Your task to perform on an android device: open wifi settings Image 0: 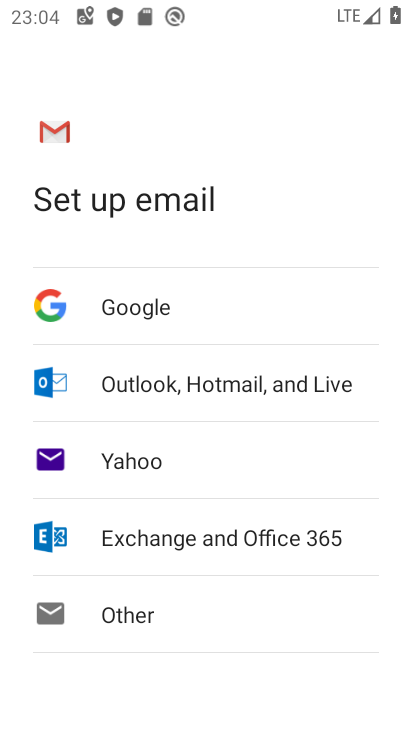
Step 0: press home button
Your task to perform on an android device: open wifi settings Image 1: 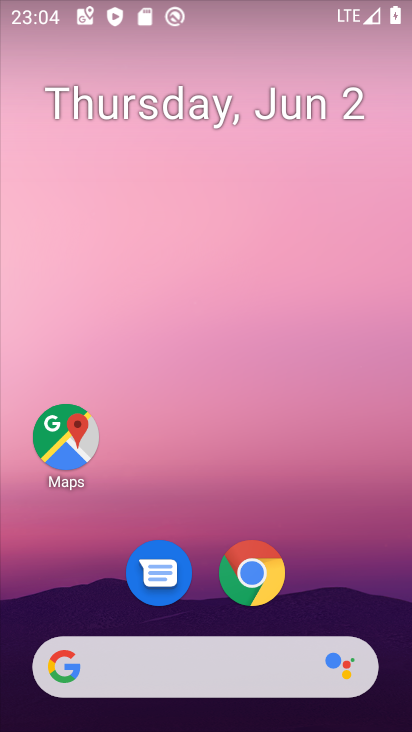
Step 1: drag from (336, 578) to (330, 413)
Your task to perform on an android device: open wifi settings Image 2: 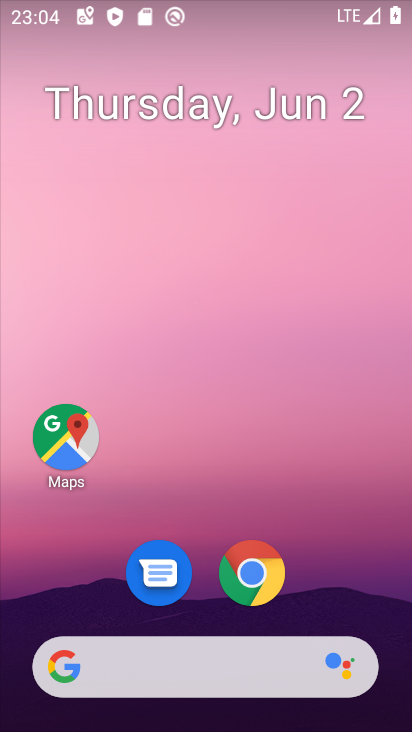
Step 2: drag from (385, 599) to (364, 52)
Your task to perform on an android device: open wifi settings Image 3: 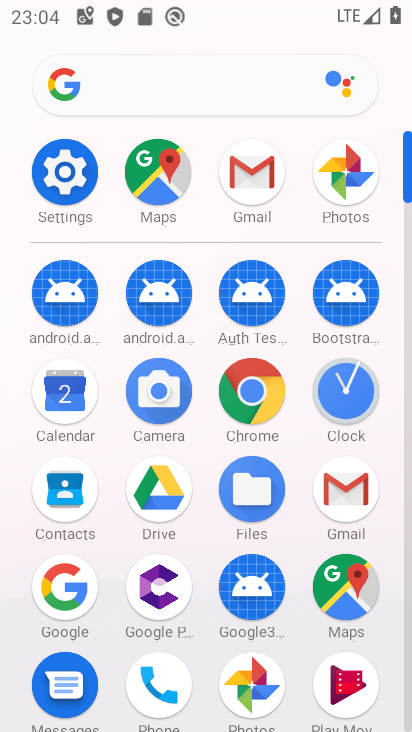
Step 3: click (73, 174)
Your task to perform on an android device: open wifi settings Image 4: 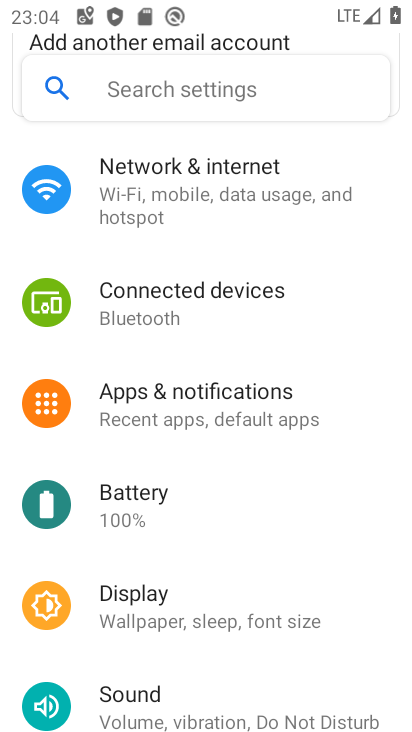
Step 4: click (226, 202)
Your task to perform on an android device: open wifi settings Image 5: 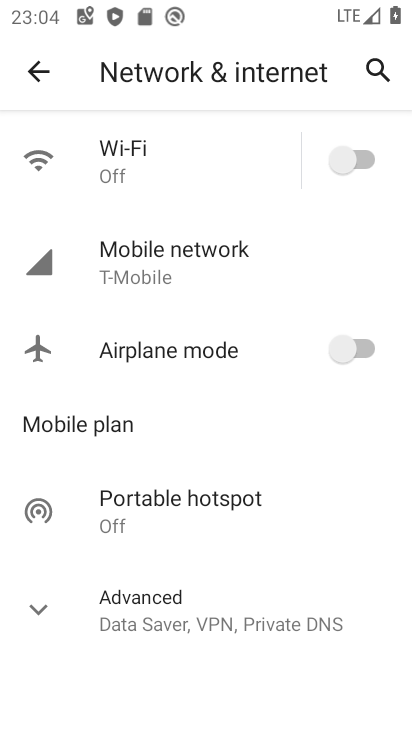
Step 5: click (140, 150)
Your task to perform on an android device: open wifi settings Image 6: 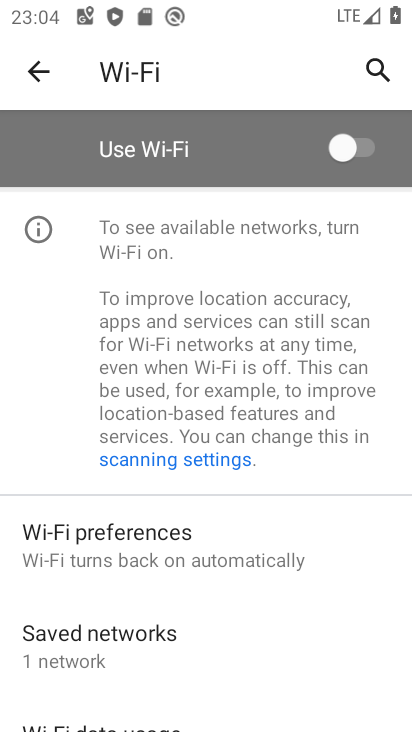
Step 6: click (313, 668)
Your task to perform on an android device: open wifi settings Image 7: 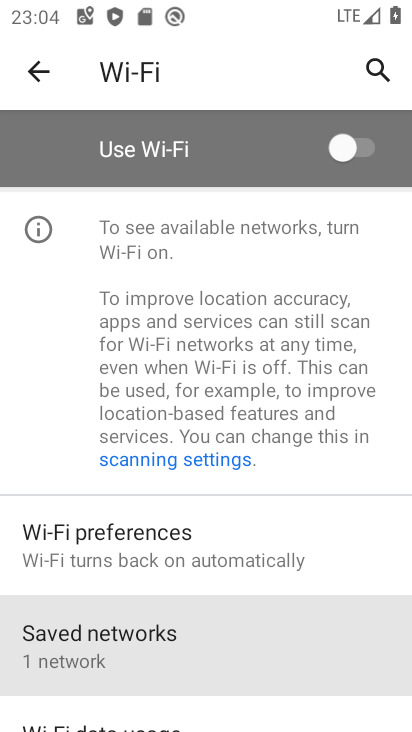
Step 7: click (313, 668)
Your task to perform on an android device: open wifi settings Image 8: 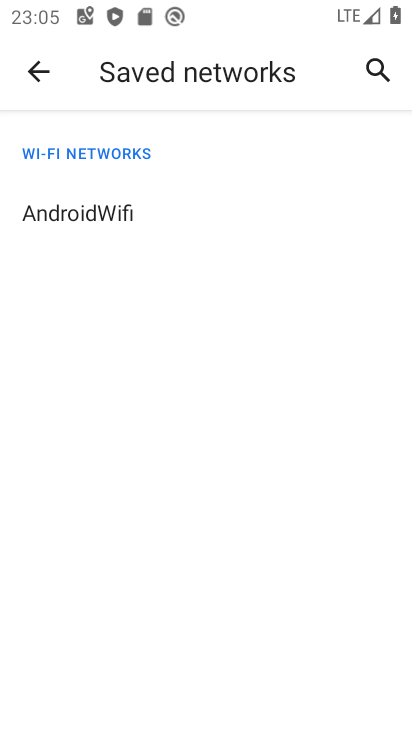
Step 8: click (36, 64)
Your task to perform on an android device: open wifi settings Image 9: 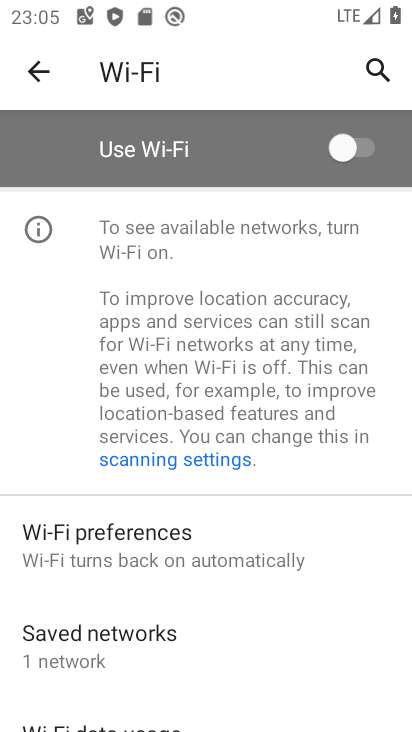
Step 9: task complete